Your task to perform on an android device: toggle improve location accuracy Image 0: 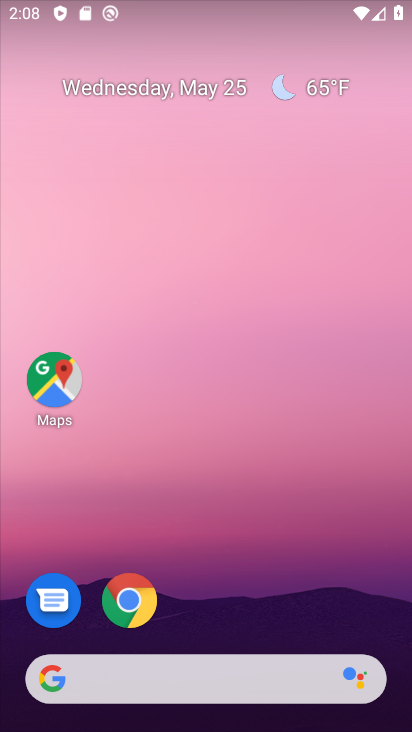
Step 0: drag from (291, 581) to (266, 206)
Your task to perform on an android device: toggle improve location accuracy Image 1: 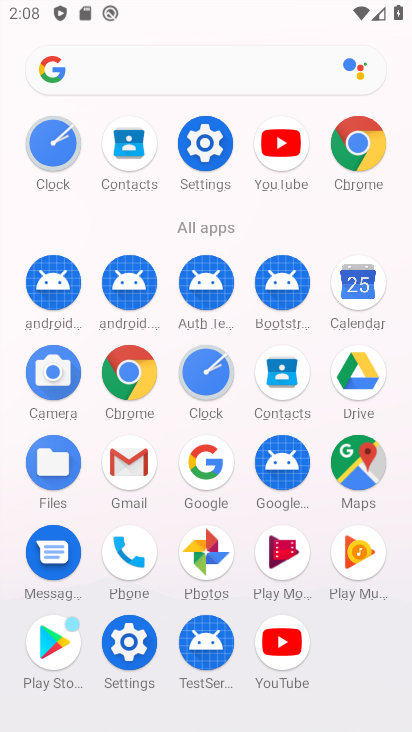
Step 1: click (212, 155)
Your task to perform on an android device: toggle improve location accuracy Image 2: 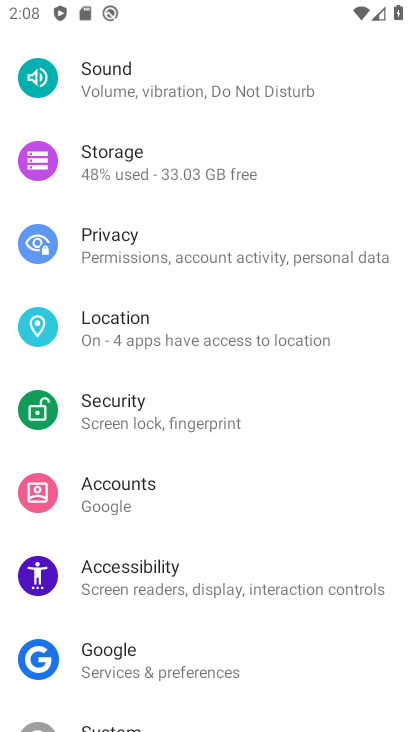
Step 2: drag from (217, 515) to (281, 203)
Your task to perform on an android device: toggle improve location accuracy Image 3: 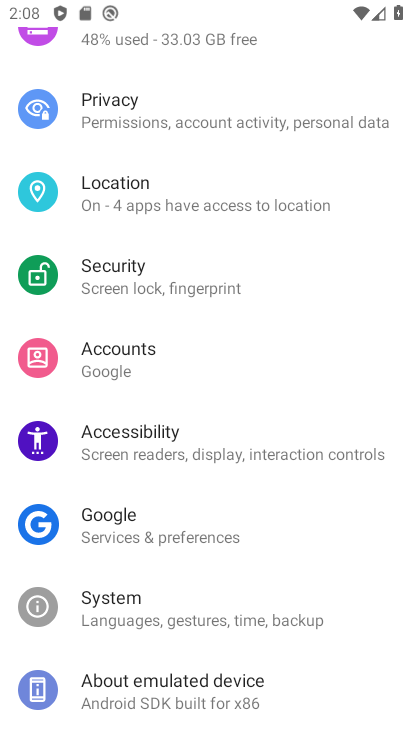
Step 3: click (185, 192)
Your task to perform on an android device: toggle improve location accuracy Image 4: 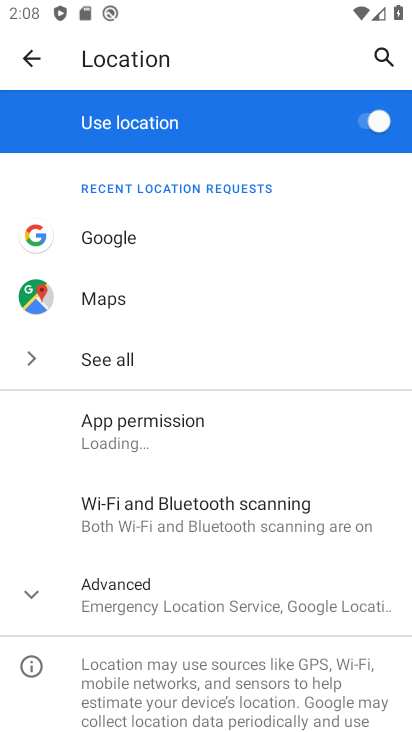
Step 4: click (159, 606)
Your task to perform on an android device: toggle improve location accuracy Image 5: 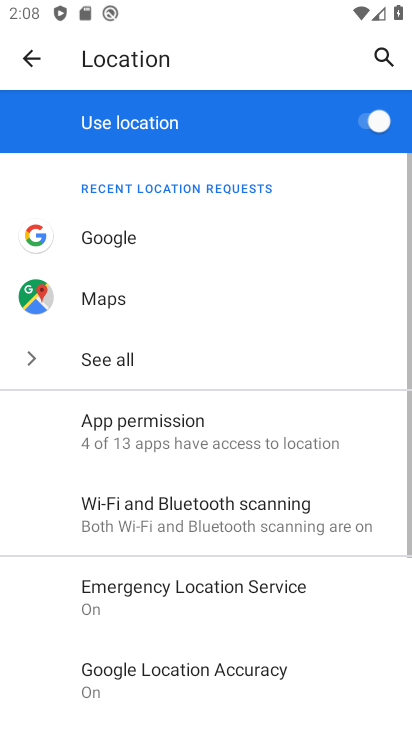
Step 5: drag from (283, 668) to (327, 218)
Your task to perform on an android device: toggle improve location accuracy Image 6: 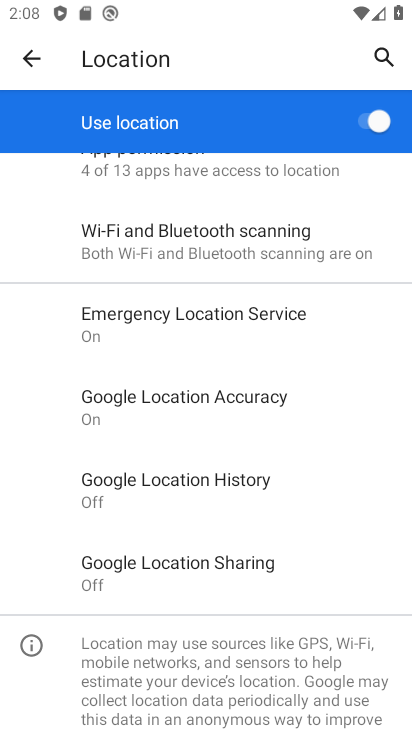
Step 6: click (242, 404)
Your task to perform on an android device: toggle improve location accuracy Image 7: 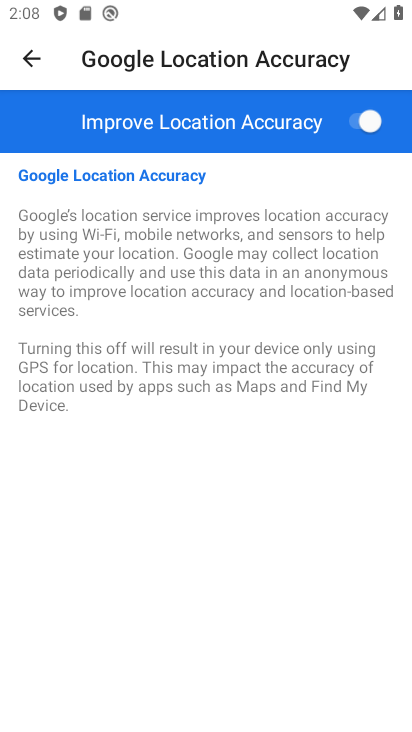
Step 7: click (340, 112)
Your task to perform on an android device: toggle improve location accuracy Image 8: 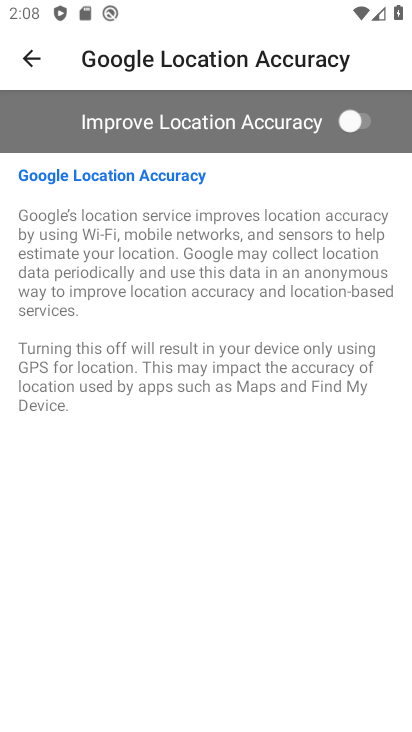
Step 8: task complete